Your task to perform on an android device: check storage Image 0: 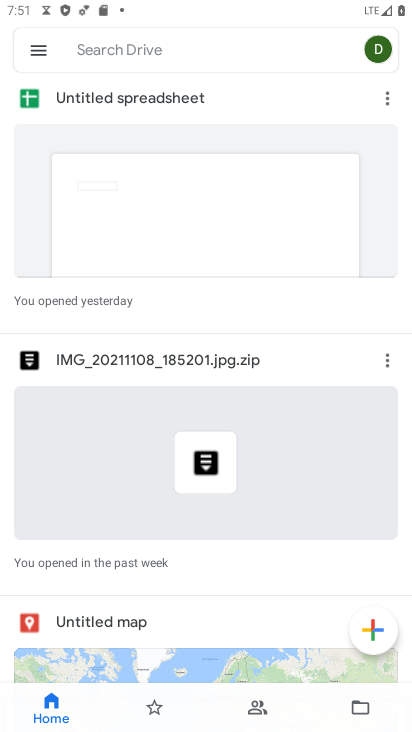
Step 0: press home button
Your task to perform on an android device: check storage Image 1: 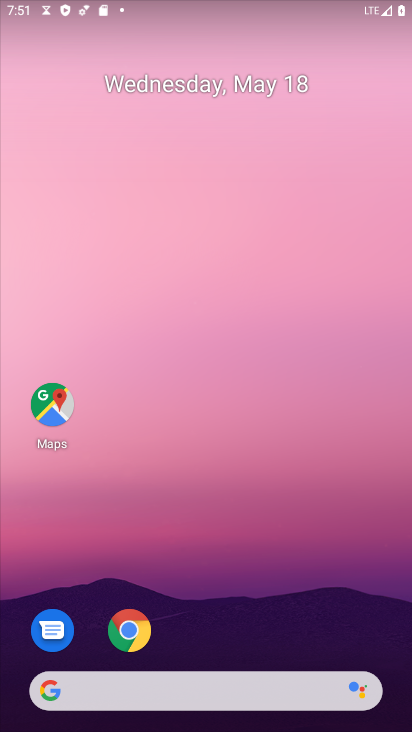
Step 1: drag from (222, 553) to (206, 93)
Your task to perform on an android device: check storage Image 2: 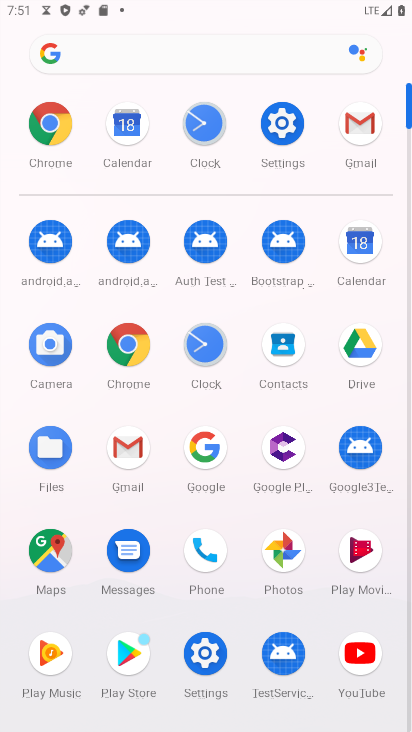
Step 2: click (271, 124)
Your task to perform on an android device: check storage Image 3: 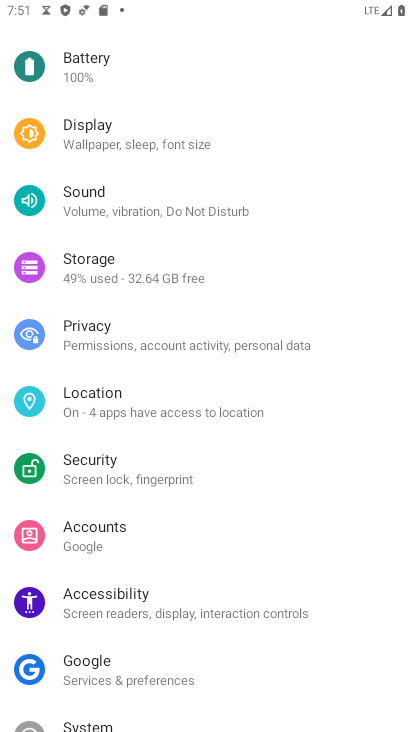
Step 3: click (140, 268)
Your task to perform on an android device: check storage Image 4: 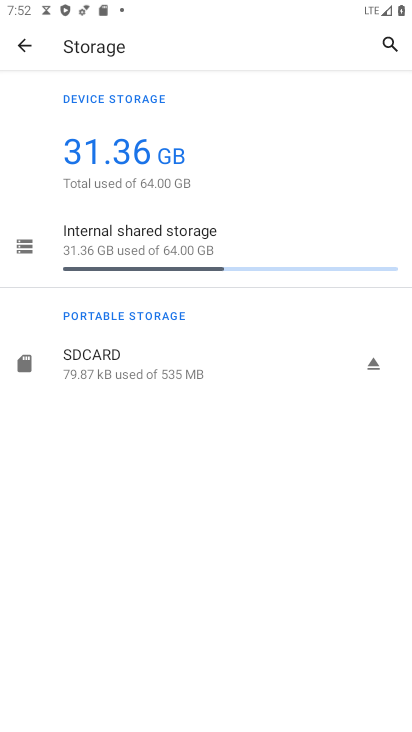
Step 4: click (140, 268)
Your task to perform on an android device: check storage Image 5: 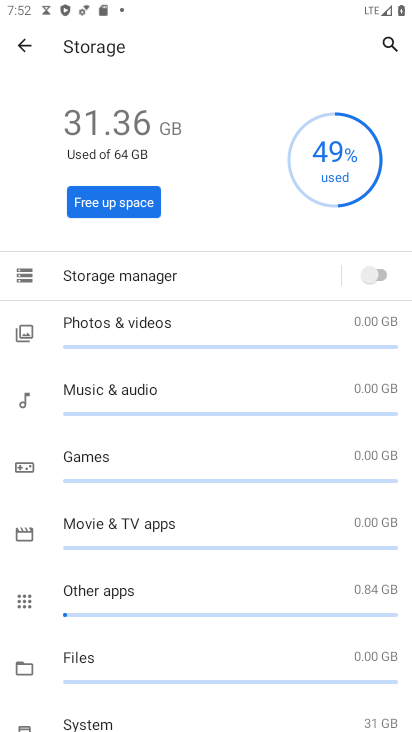
Step 5: task complete